Your task to perform on an android device: Open the calendar app, open the side menu, and click the "Day" option Image 0: 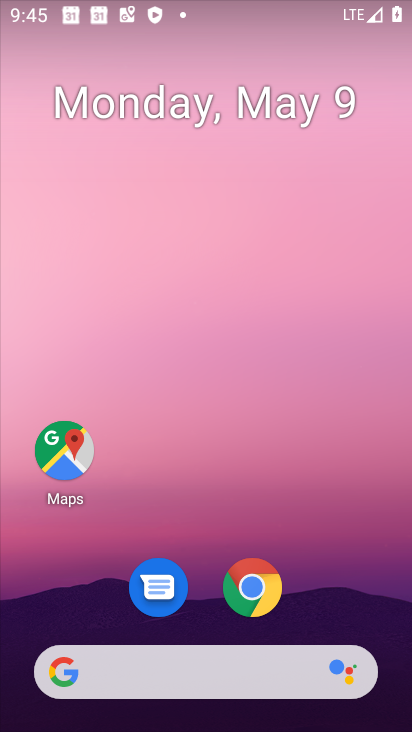
Step 0: click (179, 99)
Your task to perform on an android device: Open the calendar app, open the side menu, and click the "Day" option Image 1: 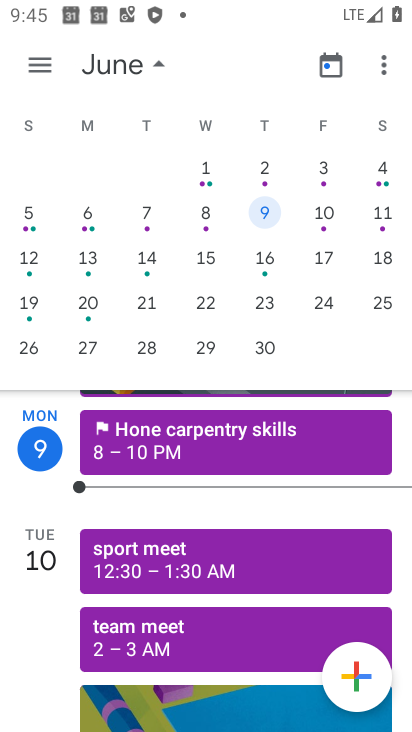
Step 1: click (46, 57)
Your task to perform on an android device: Open the calendar app, open the side menu, and click the "Day" option Image 2: 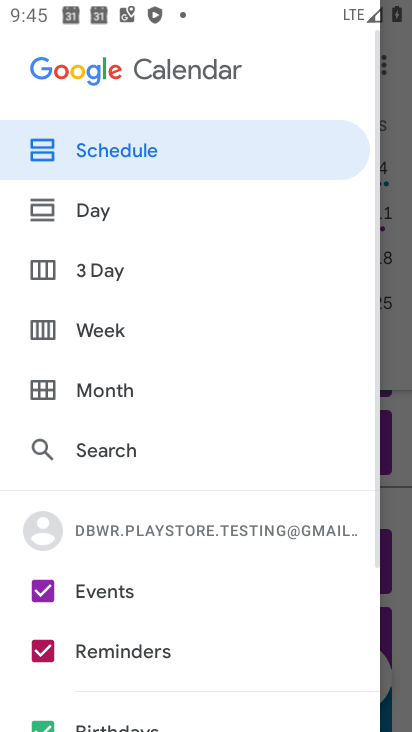
Step 2: click (127, 229)
Your task to perform on an android device: Open the calendar app, open the side menu, and click the "Day" option Image 3: 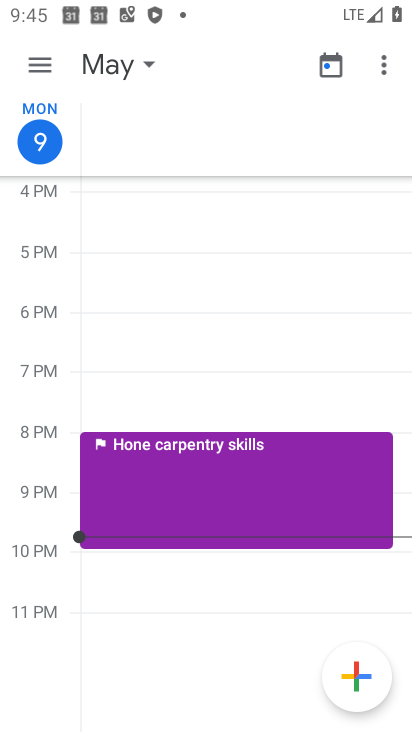
Step 3: task complete